Your task to perform on an android device: Clear all items from cart on target.com. Image 0: 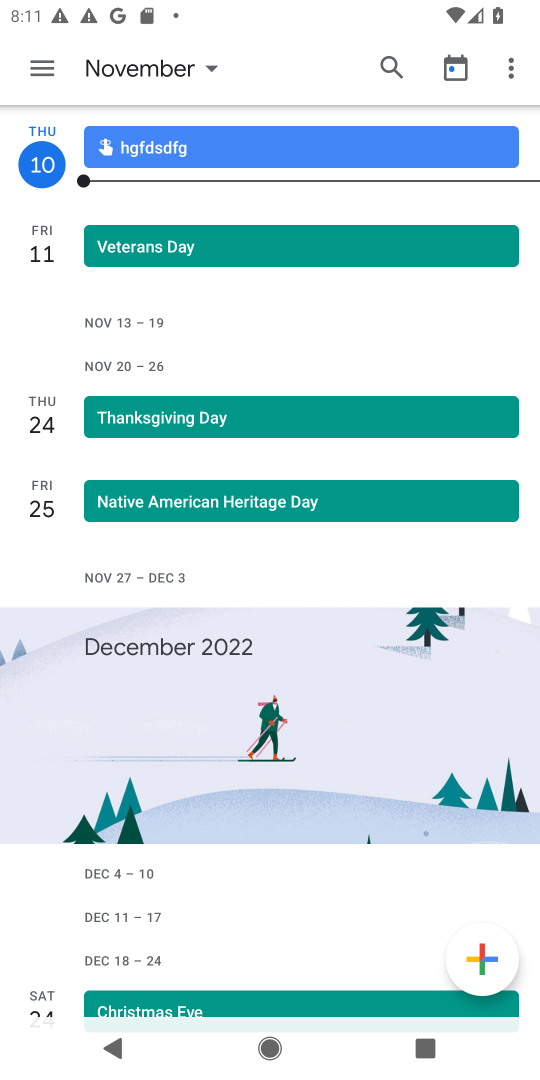
Step 0: press home button
Your task to perform on an android device: Clear all items from cart on target.com. Image 1: 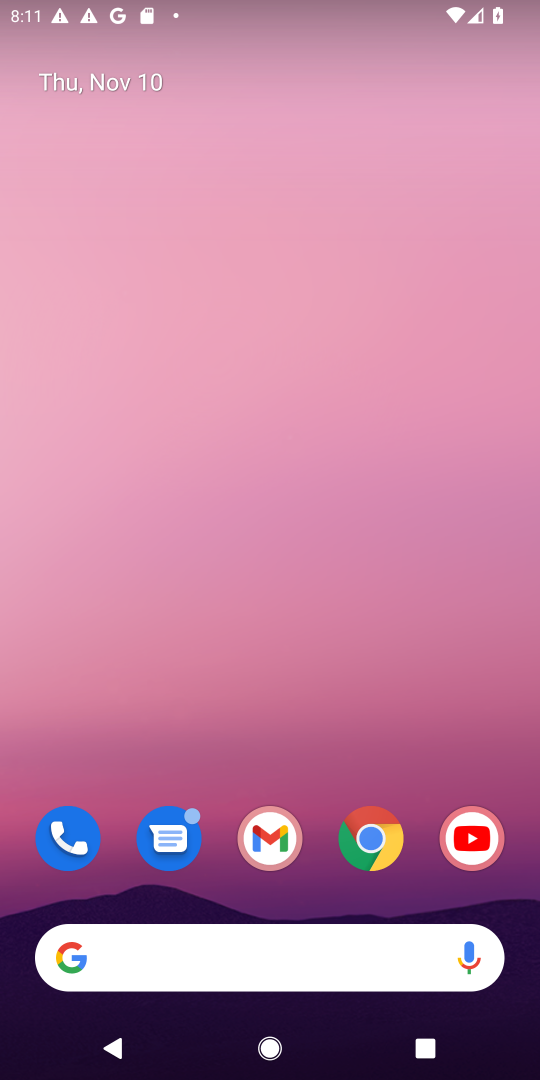
Step 1: drag from (305, 907) to (373, 36)
Your task to perform on an android device: Clear all items from cart on target.com. Image 2: 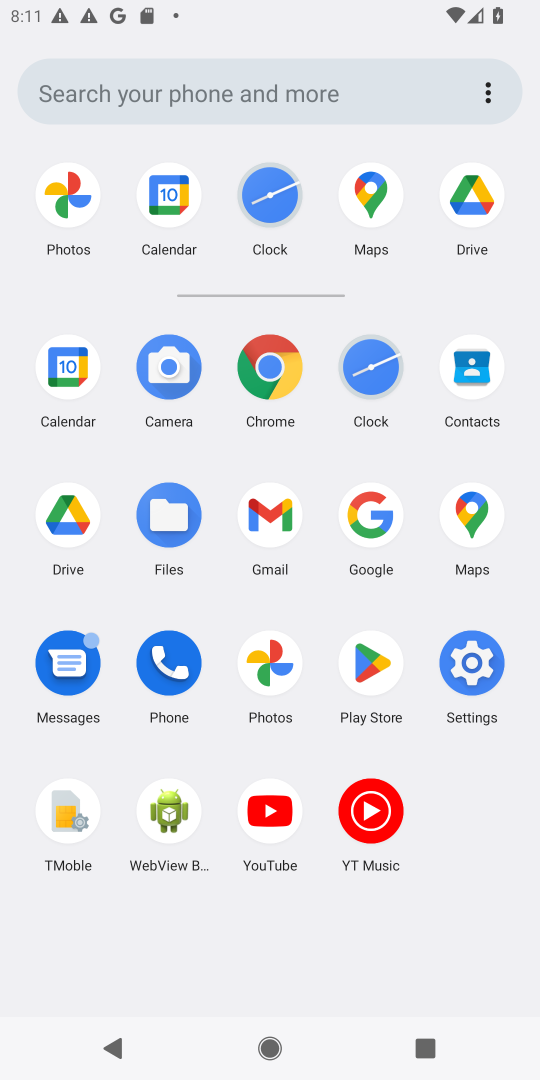
Step 2: click (274, 367)
Your task to perform on an android device: Clear all items from cart on target.com. Image 3: 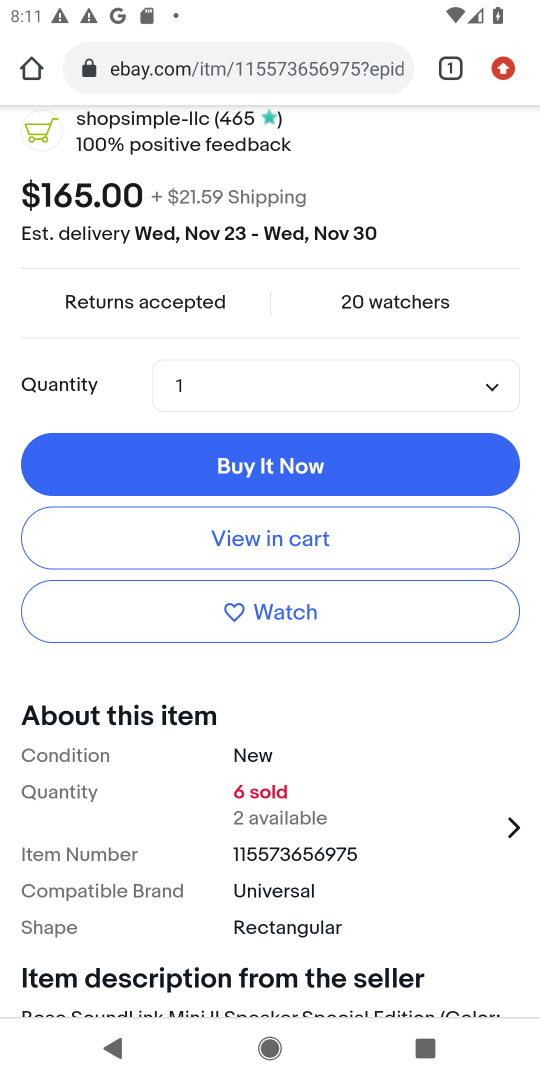
Step 3: click (326, 67)
Your task to perform on an android device: Clear all items from cart on target.com. Image 4: 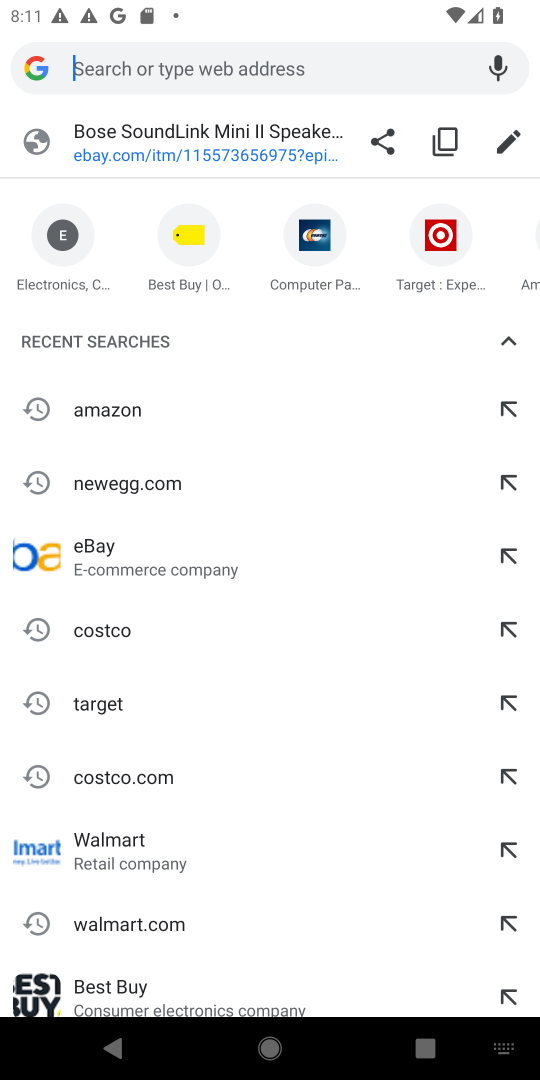
Step 4: type "target.com"
Your task to perform on an android device: Clear all items from cart on target.com. Image 5: 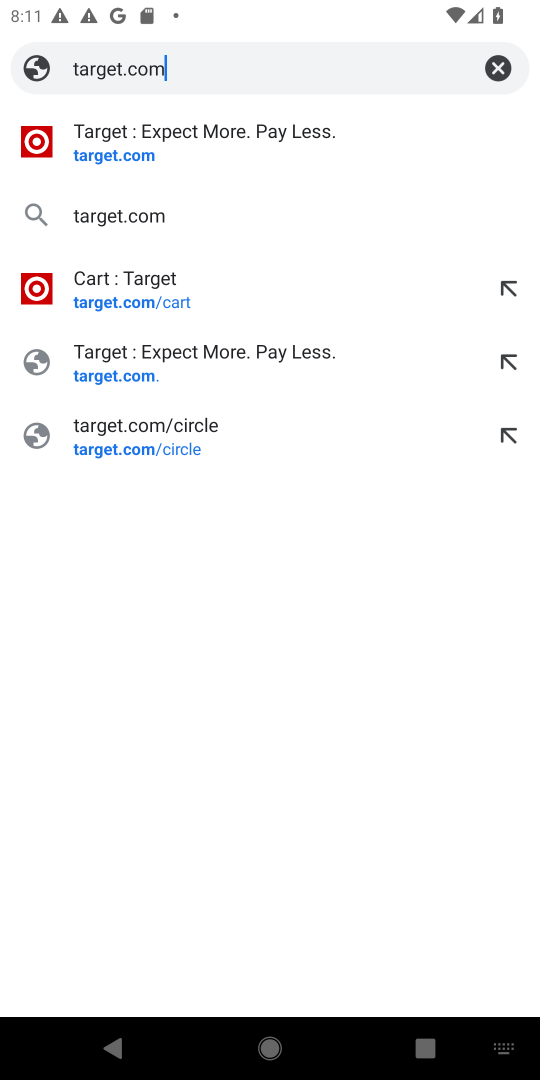
Step 5: press enter
Your task to perform on an android device: Clear all items from cart on target.com. Image 6: 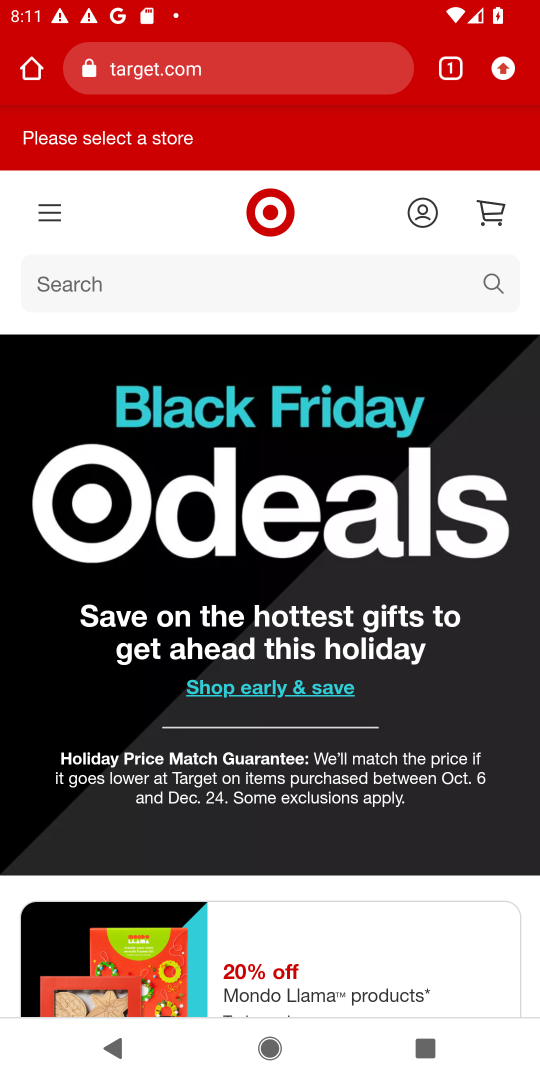
Step 6: click (506, 205)
Your task to perform on an android device: Clear all items from cart on target.com. Image 7: 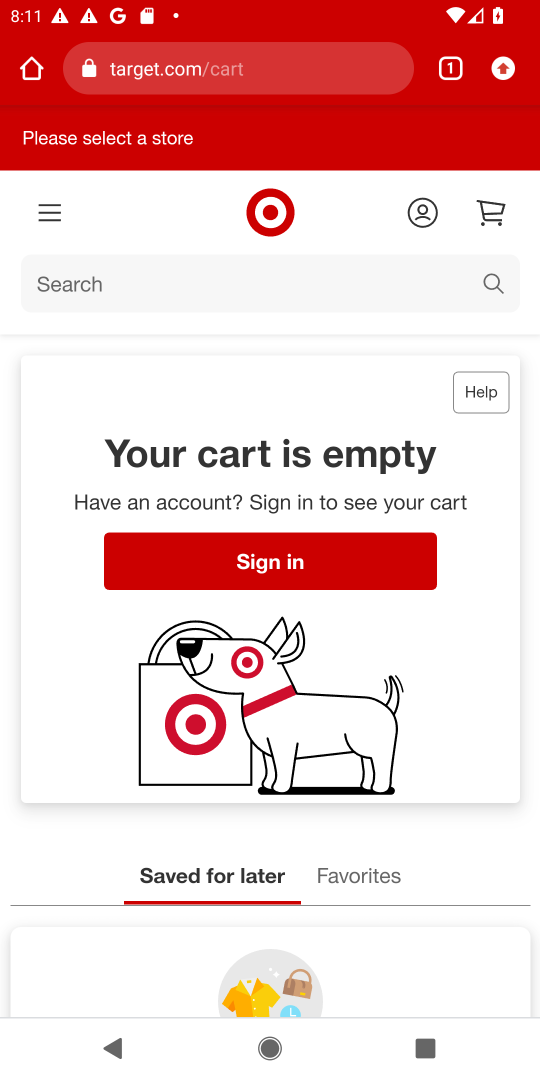
Step 7: task complete